Your task to perform on an android device: toggle show notifications on the lock screen Image 0: 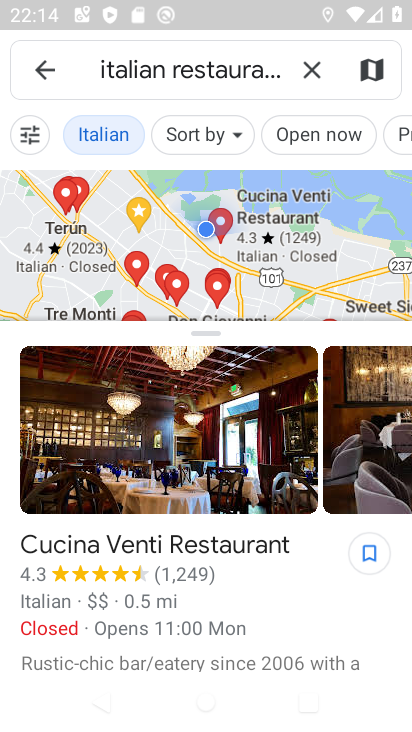
Step 0: press home button
Your task to perform on an android device: toggle show notifications on the lock screen Image 1: 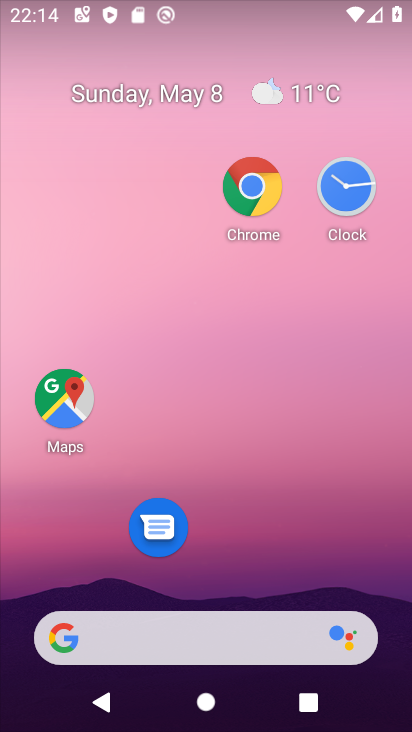
Step 1: drag from (233, 447) to (247, 3)
Your task to perform on an android device: toggle show notifications on the lock screen Image 2: 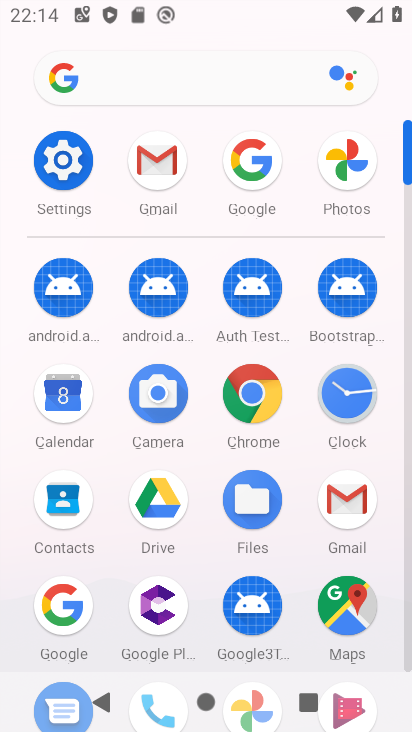
Step 2: drag from (107, 507) to (165, 134)
Your task to perform on an android device: toggle show notifications on the lock screen Image 3: 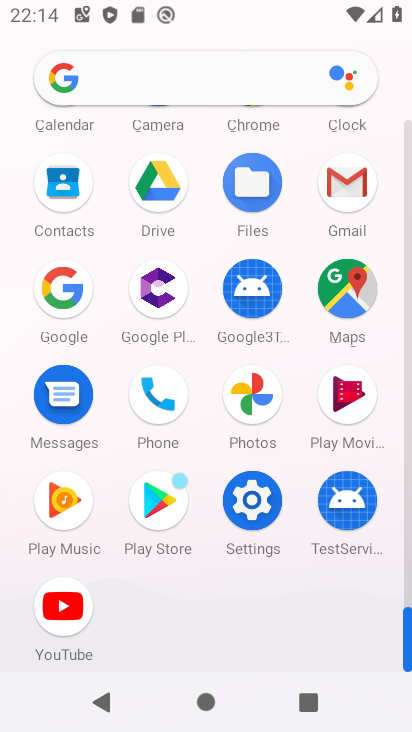
Step 3: drag from (130, 172) to (106, 598)
Your task to perform on an android device: toggle show notifications on the lock screen Image 4: 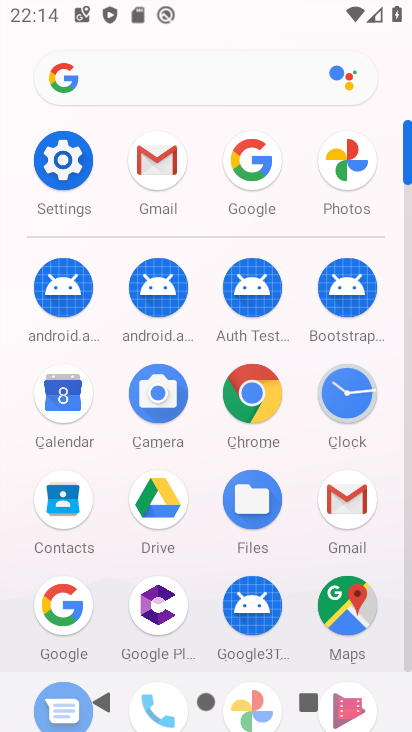
Step 4: drag from (256, 544) to (271, 202)
Your task to perform on an android device: toggle show notifications on the lock screen Image 5: 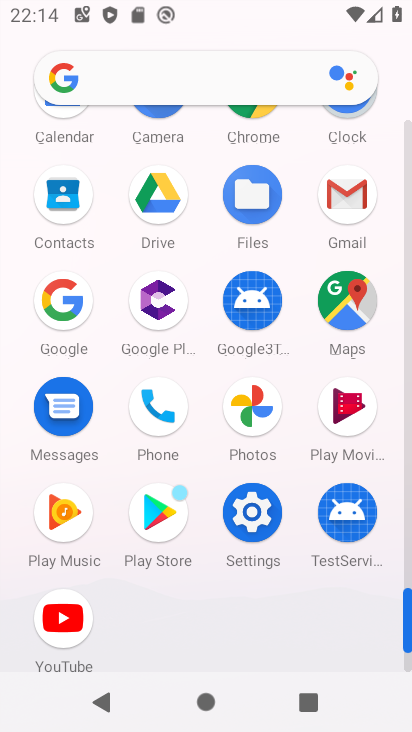
Step 5: click (245, 498)
Your task to perform on an android device: toggle show notifications on the lock screen Image 6: 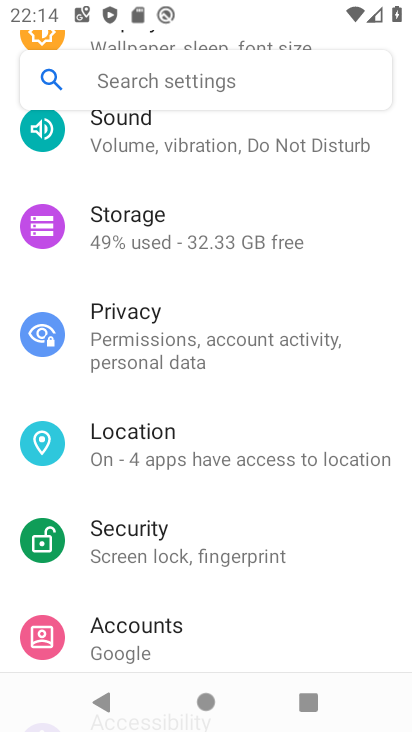
Step 6: drag from (199, 508) to (212, 172)
Your task to perform on an android device: toggle show notifications on the lock screen Image 7: 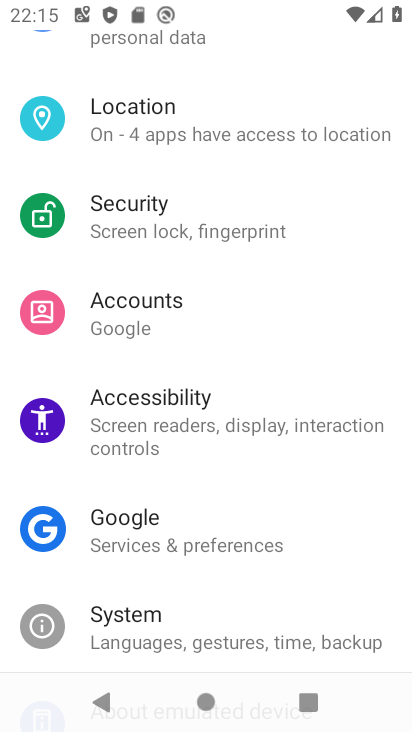
Step 7: drag from (150, 471) to (188, 177)
Your task to perform on an android device: toggle show notifications on the lock screen Image 8: 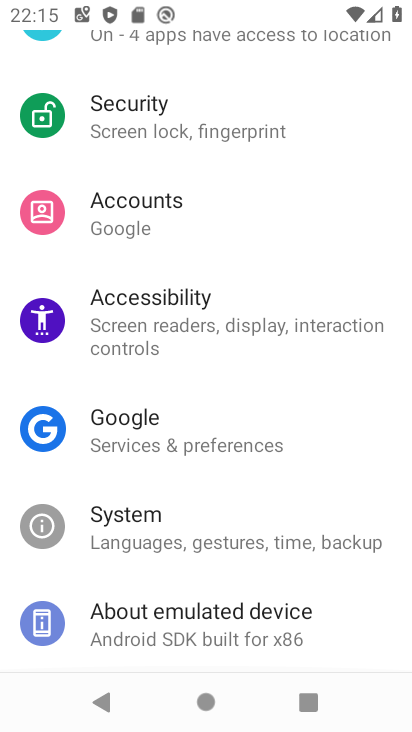
Step 8: drag from (188, 168) to (173, 713)
Your task to perform on an android device: toggle show notifications on the lock screen Image 9: 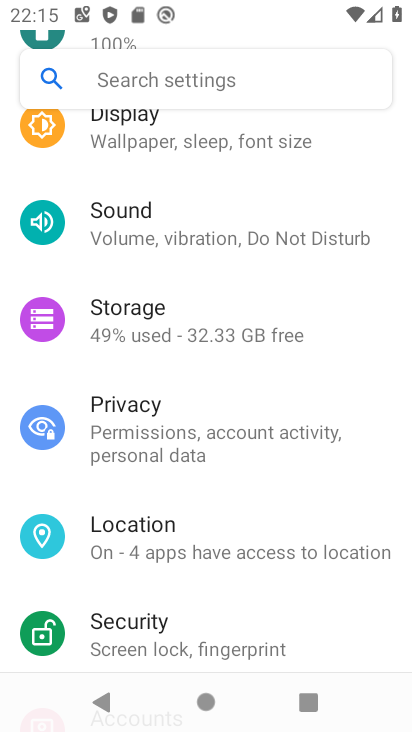
Step 9: click (83, 70)
Your task to perform on an android device: toggle show notifications on the lock screen Image 10: 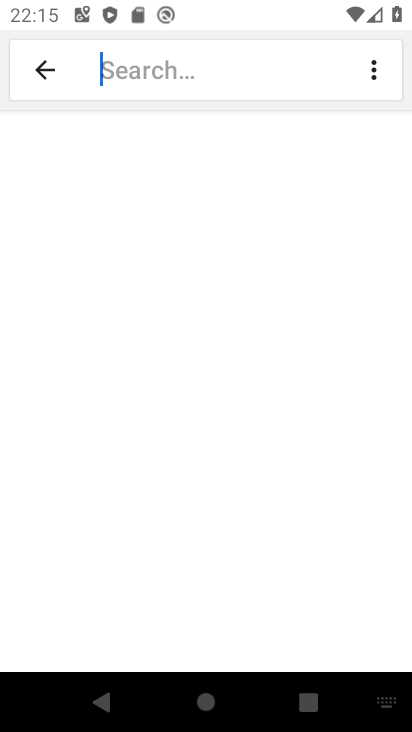
Step 10: click (37, 59)
Your task to perform on an android device: toggle show notifications on the lock screen Image 11: 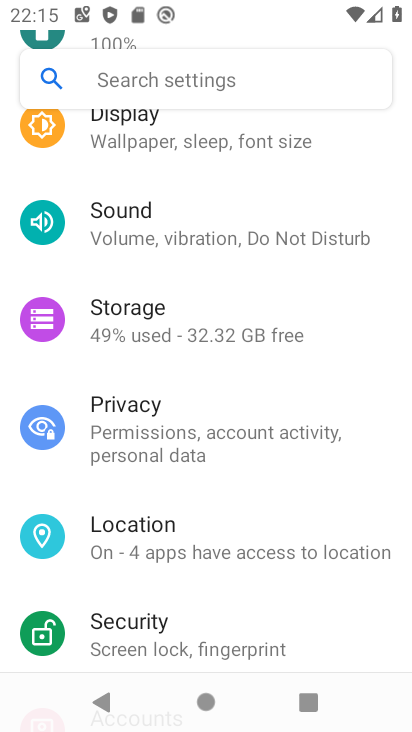
Step 11: drag from (175, 195) to (164, 572)
Your task to perform on an android device: toggle show notifications on the lock screen Image 12: 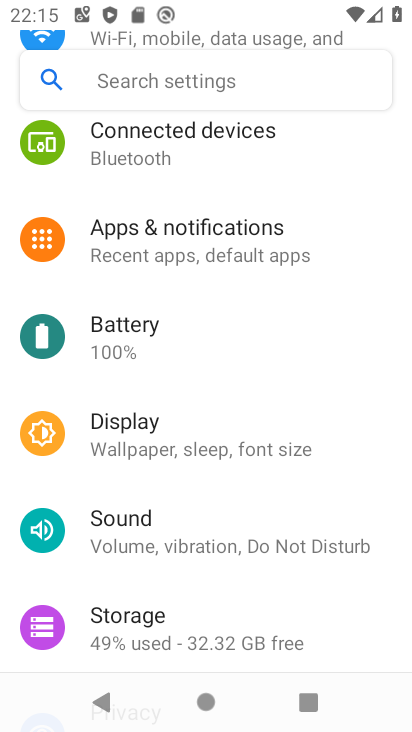
Step 12: click (146, 246)
Your task to perform on an android device: toggle show notifications on the lock screen Image 13: 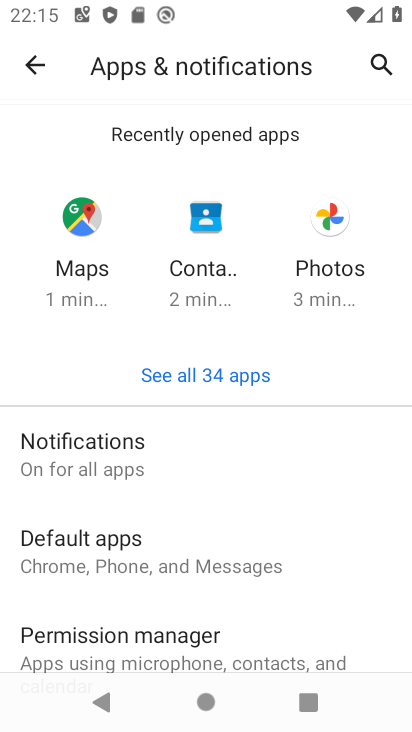
Step 13: click (39, 447)
Your task to perform on an android device: toggle show notifications on the lock screen Image 14: 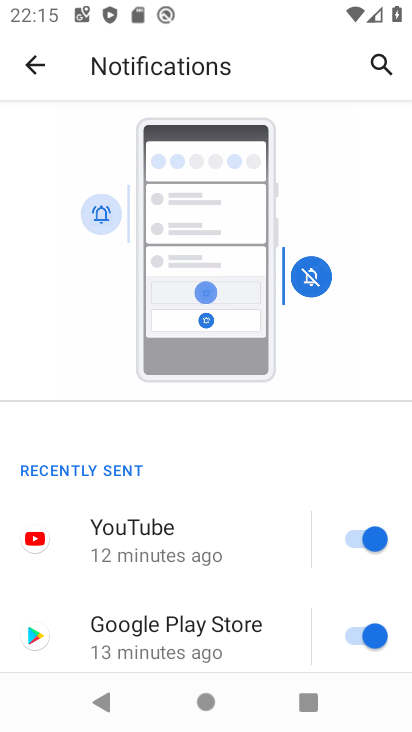
Step 14: drag from (208, 565) to (230, 151)
Your task to perform on an android device: toggle show notifications on the lock screen Image 15: 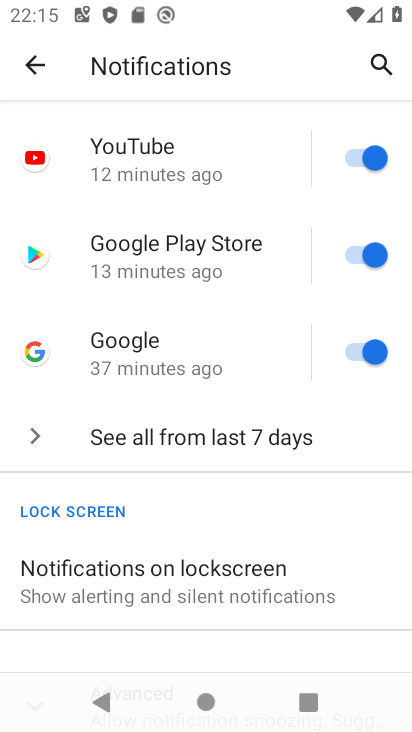
Step 15: click (109, 572)
Your task to perform on an android device: toggle show notifications on the lock screen Image 16: 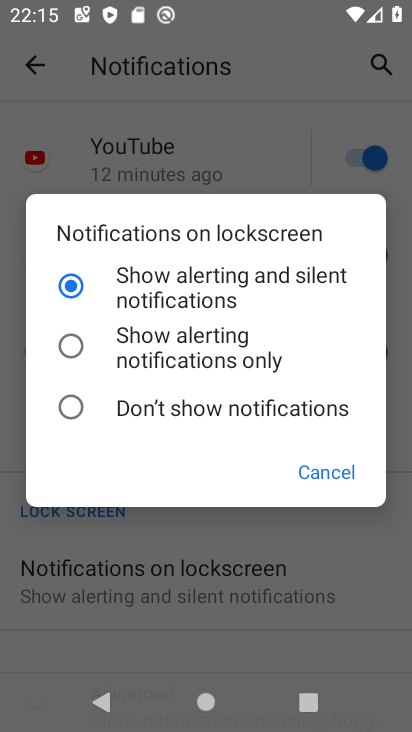
Step 16: click (80, 407)
Your task to perform on an android device: toggle show notifications on the lock screen Image 17: 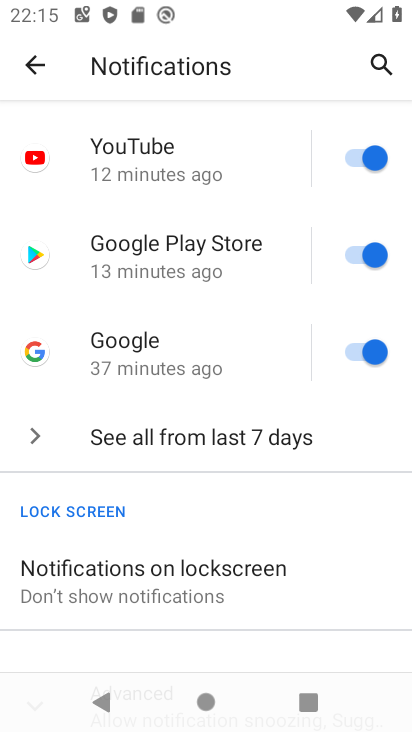
Step 17: task complete